Your task to perform on an android device: Is it going to rain this weekend? Image 0: 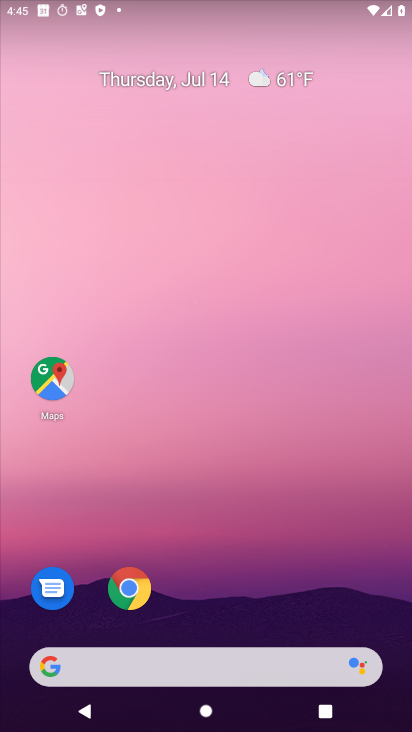
Step 0: drag from (188, 670) to (266, 298)
Your task to perform on an android device: Is it going to rain this weekend? Image 1: 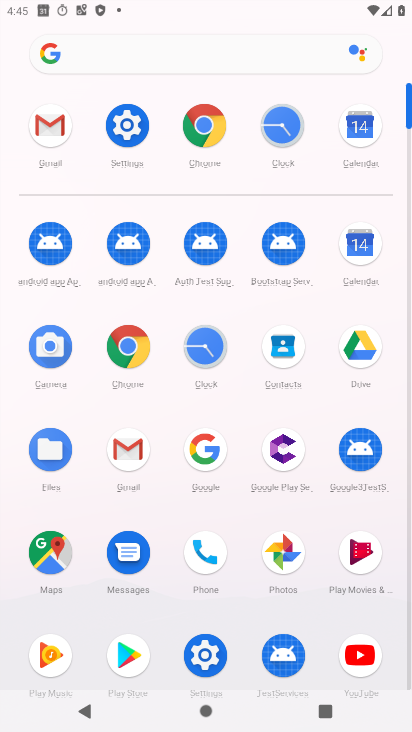
Step 1: click (207, 447)
Your task to perform on an android device: Is it going to rain this weekend? Image 2: 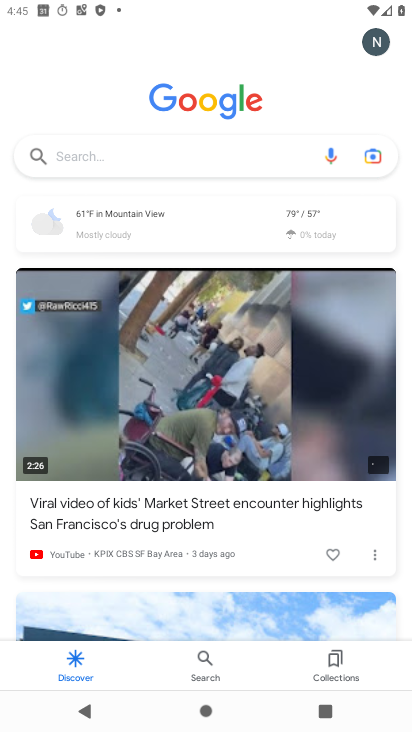
Step 2: click (283, 154)
Your task to perform on an android device: Is it going to rain this weekend? Image 3: 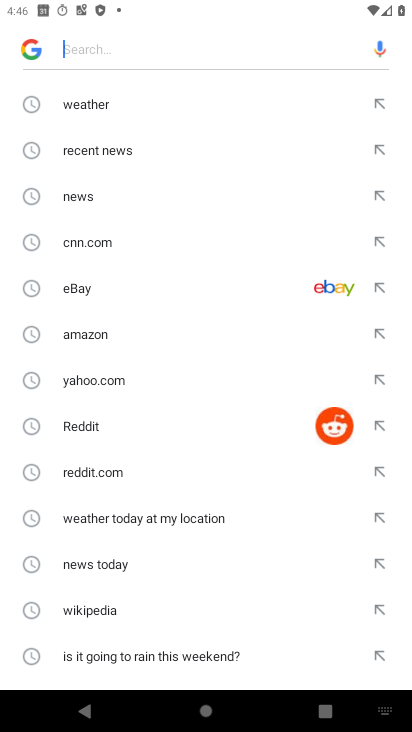
Step 3: type "Is it going to rain this weekend?"
Your task to perform on an android device: Is it going to rain this weekend? Image 4: 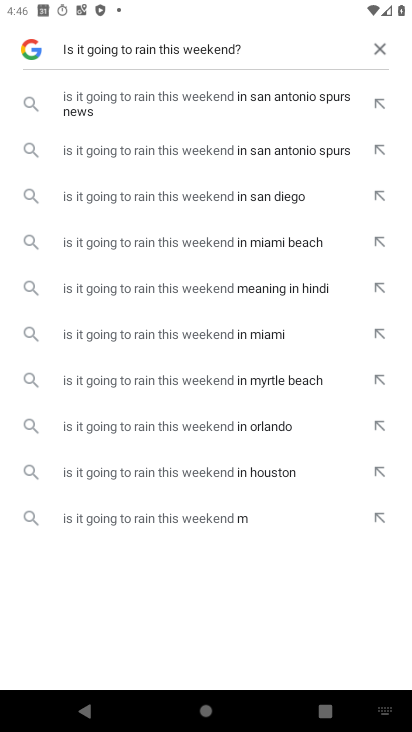
Step 4: click (144, 193)
Your task to perform on an android device: Is it going to rain this weekend? Image 5: 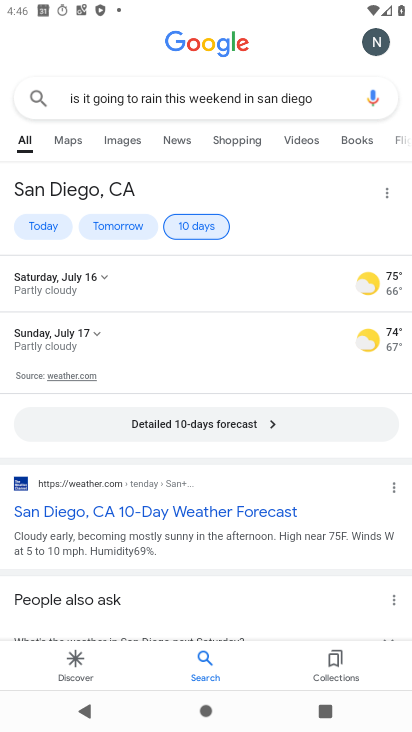
Step 5: task complete